Your task to perform on an android device: Go to internet settings Image 0: 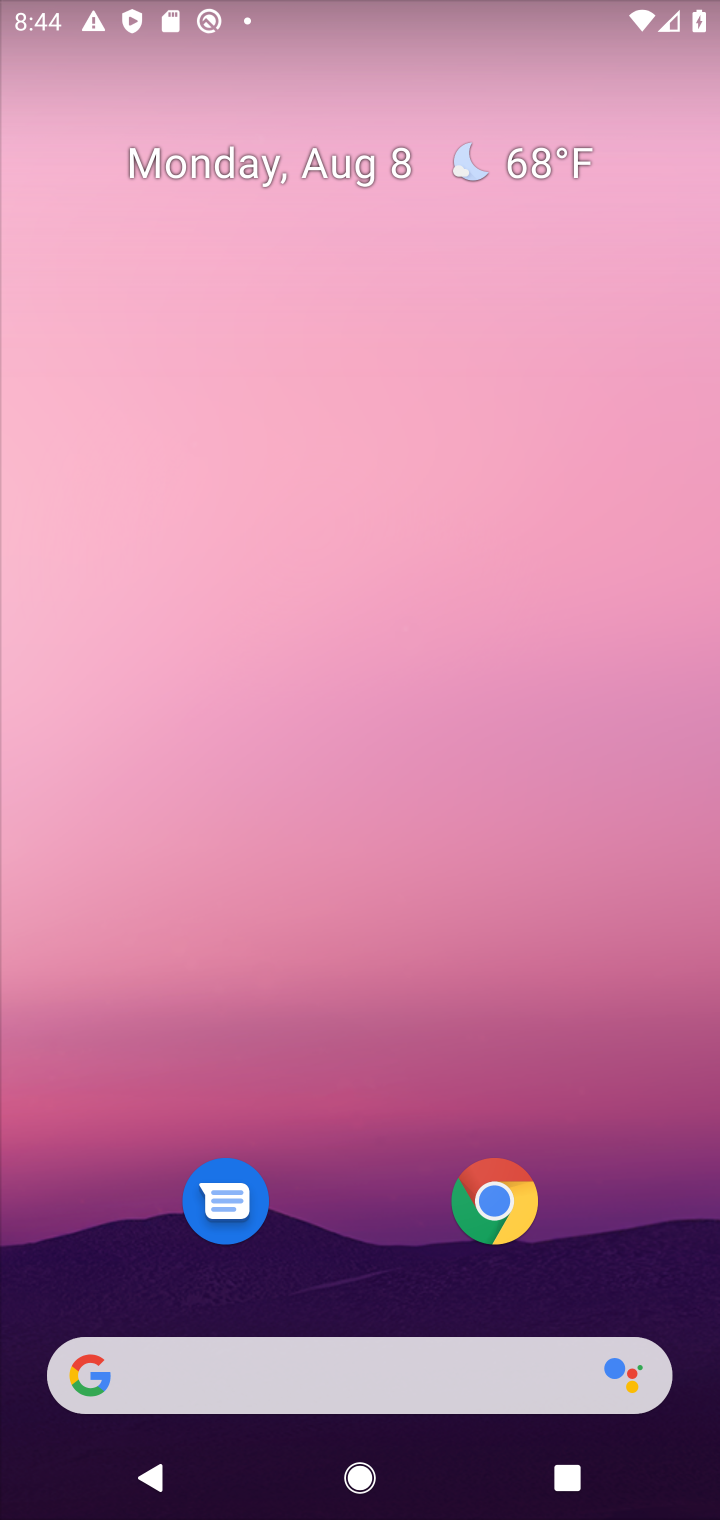
Step 0: press home button
Your task to perform on an android device: Go to internet settings Image 1: 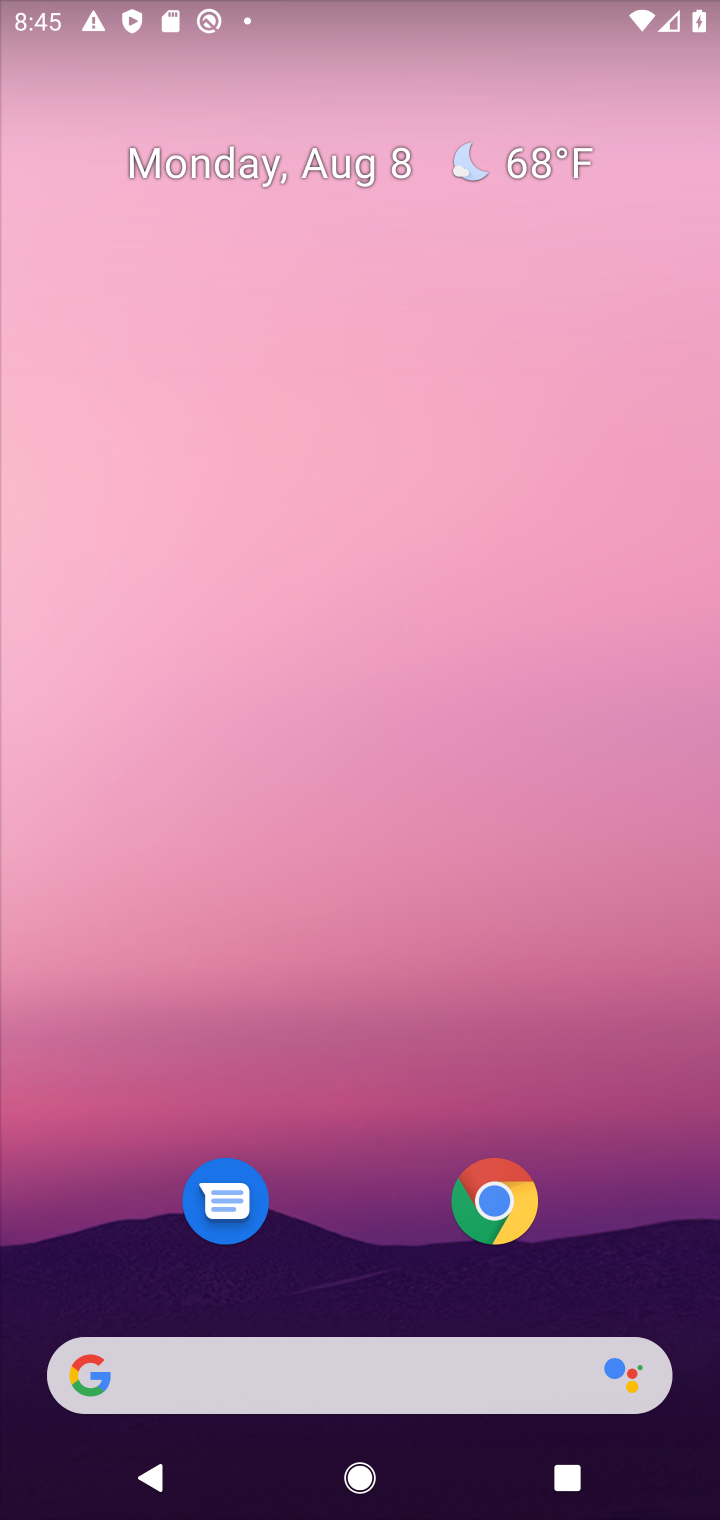
Step 1: drag from (611, 1102) to (643, 225)
Your task to perform on an android device: Go to internet settings Image 2: 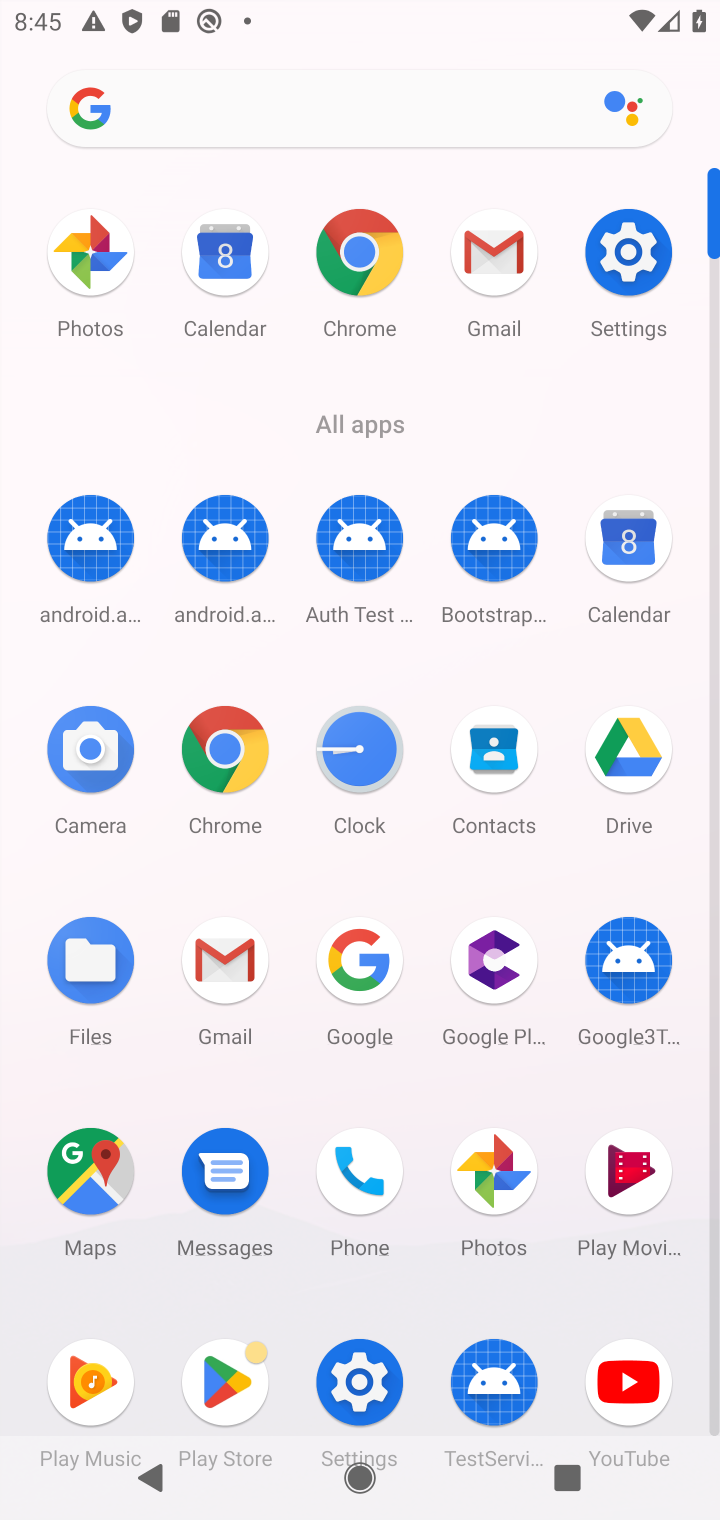
Step 2: click (624, 261)
Your task to perform on an android device: Go to internet settings Image 3: 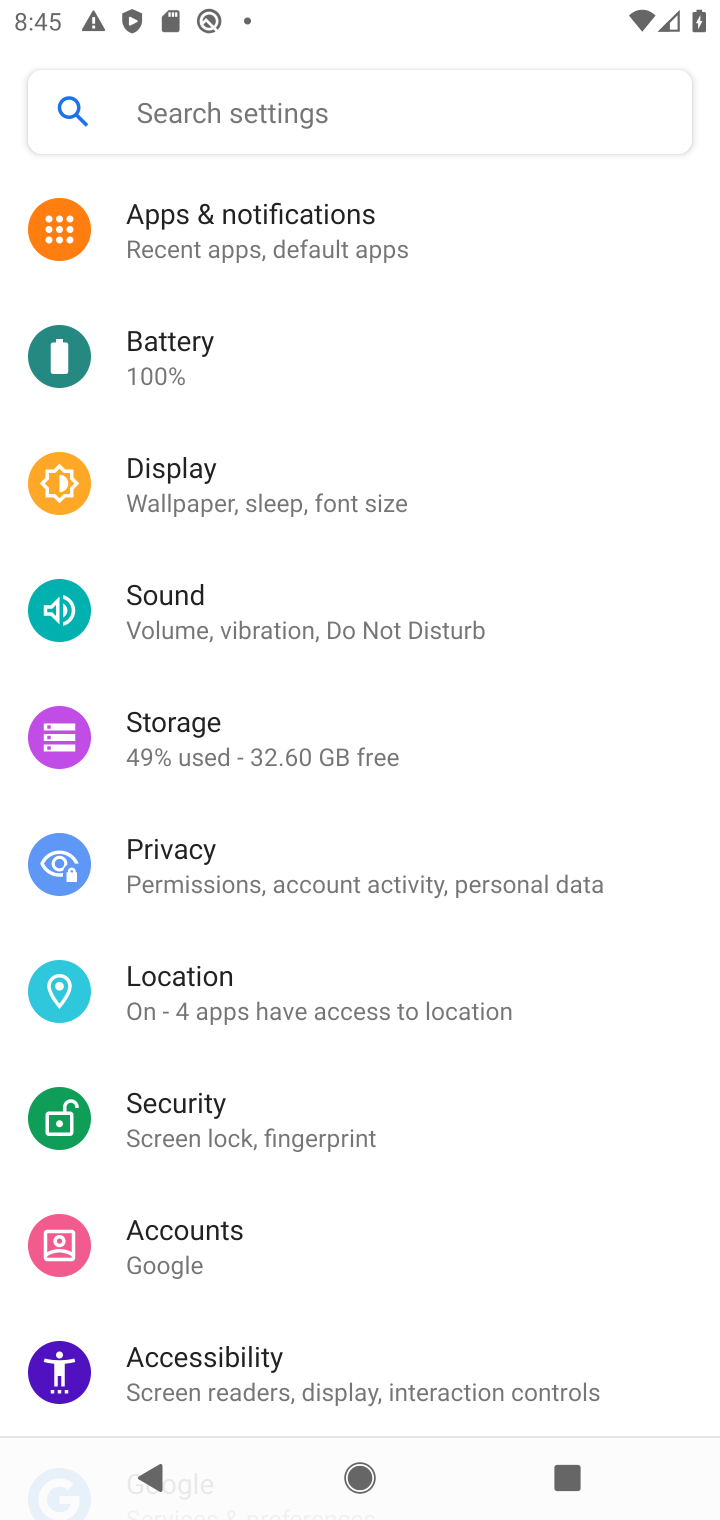
Step 3: drag from (634, 333) to (641, 709)
Your task to perform on an android device: Go to internet settings Image 4: 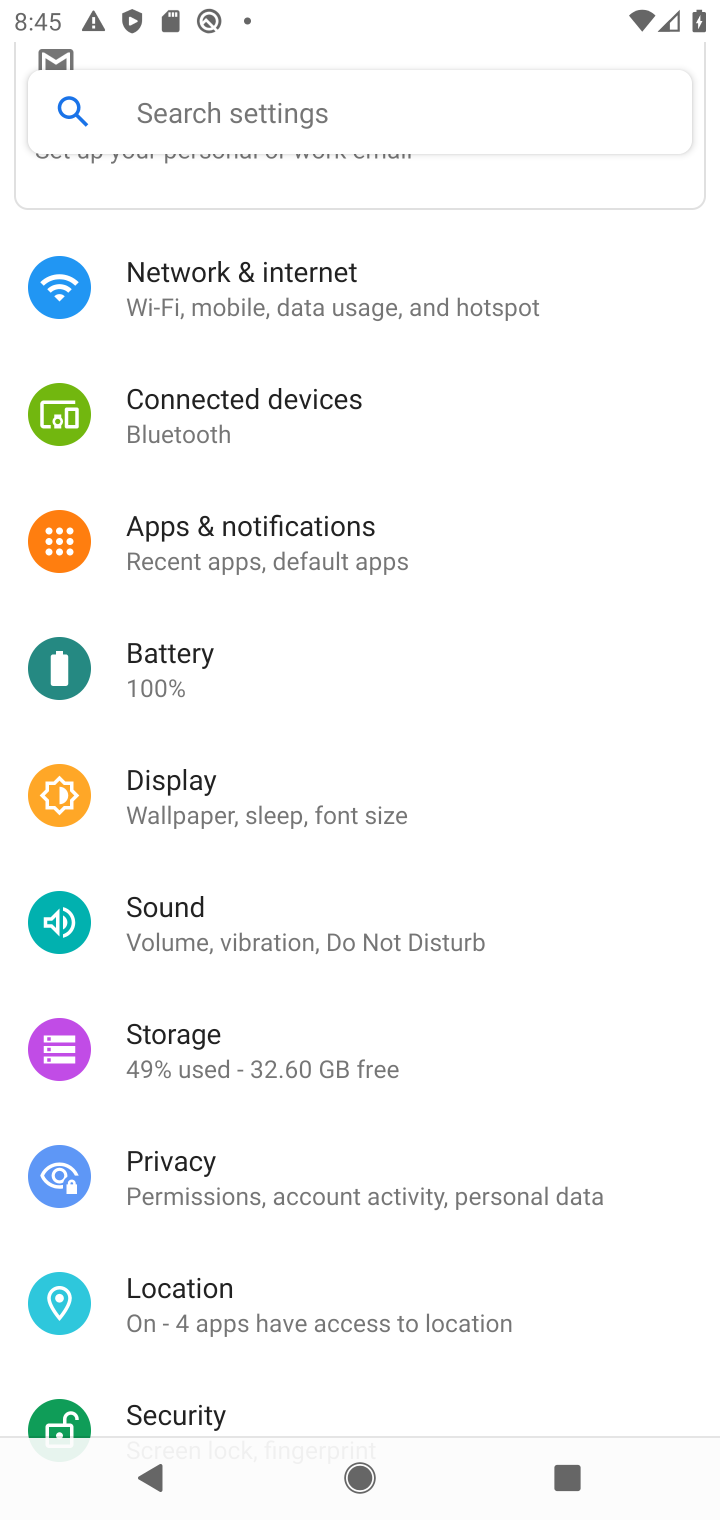
Step 4: drag from (626, 265) to (654, 683)
Your task to perform on an android device: Go to internet settings Image 5: 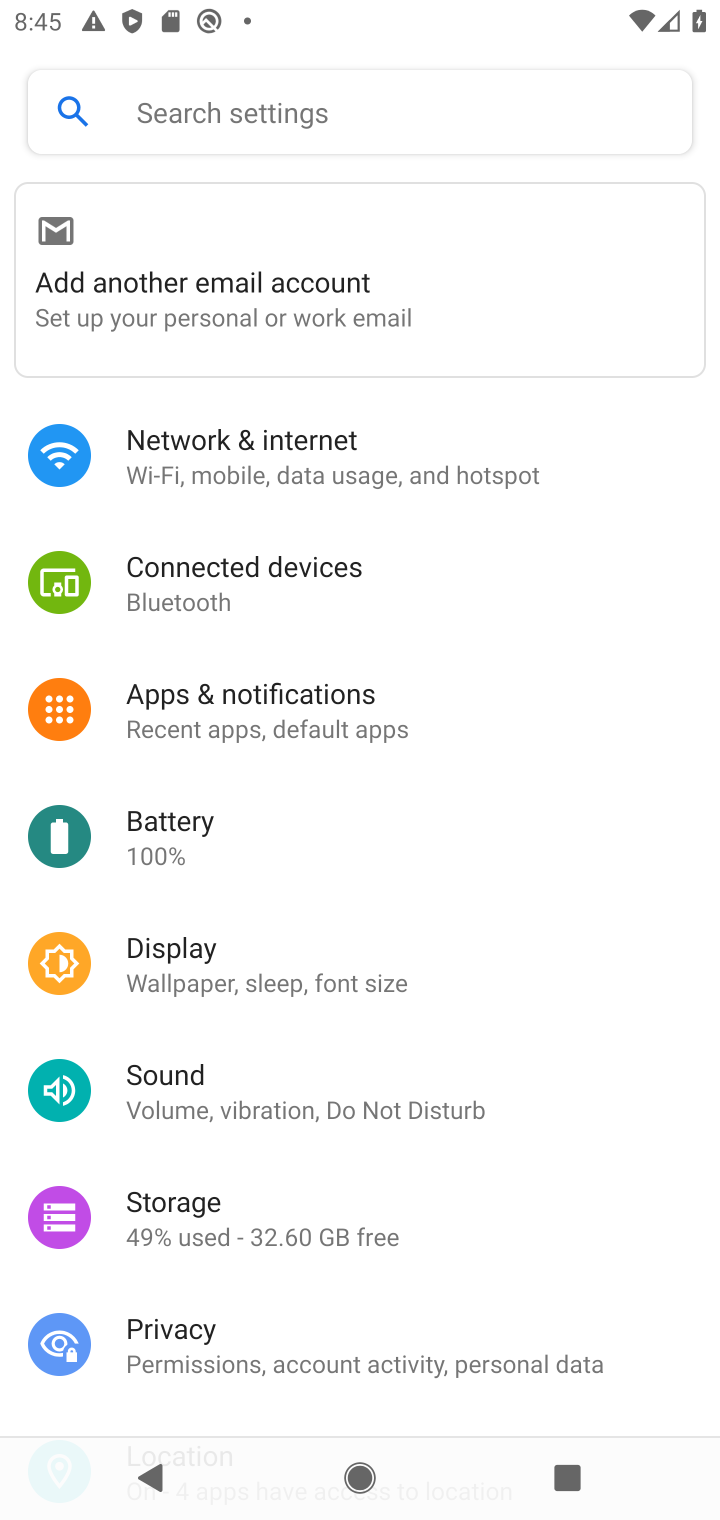
Step 5: click (449, 437)
Your task to perform on an android device: Go to internet settings Image 6: 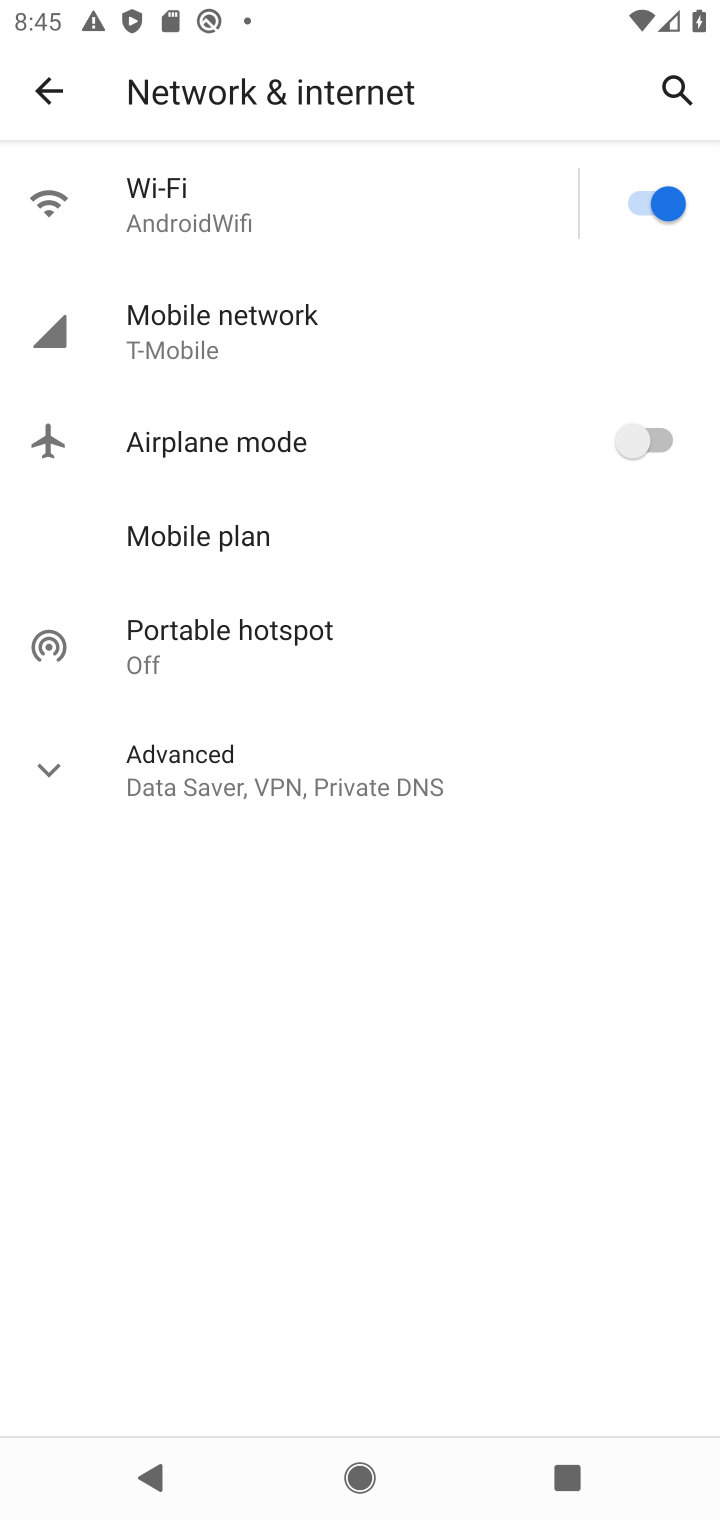
Step 6: task complete